Your task to perform on an android device: Search for vegetarian restaurants on Maps Image 0: 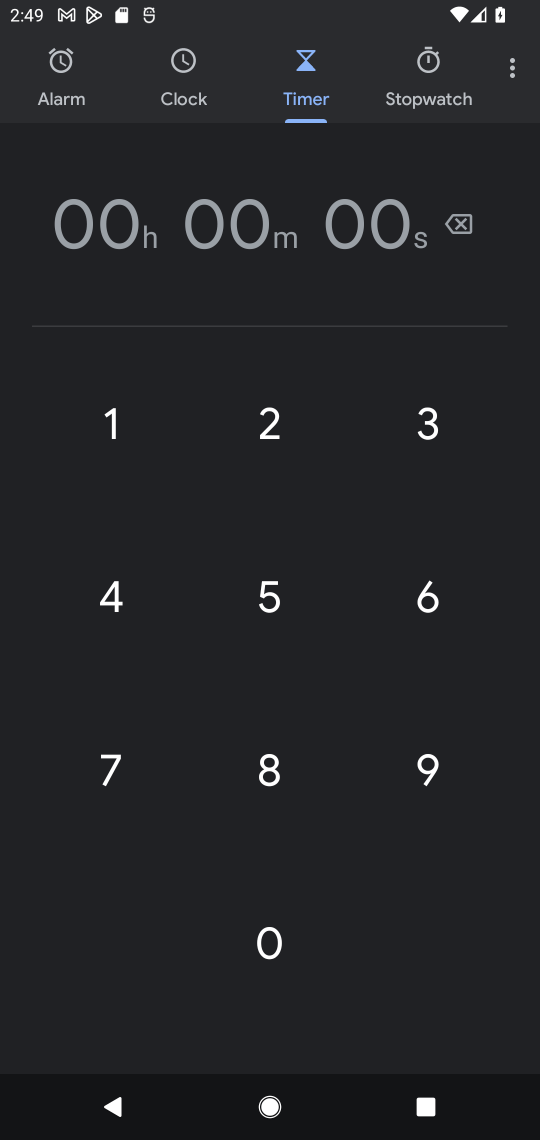
Step 0: press home button
Your task to perform on an android device: Search for vegetarian restaurants on Maps Image 1: 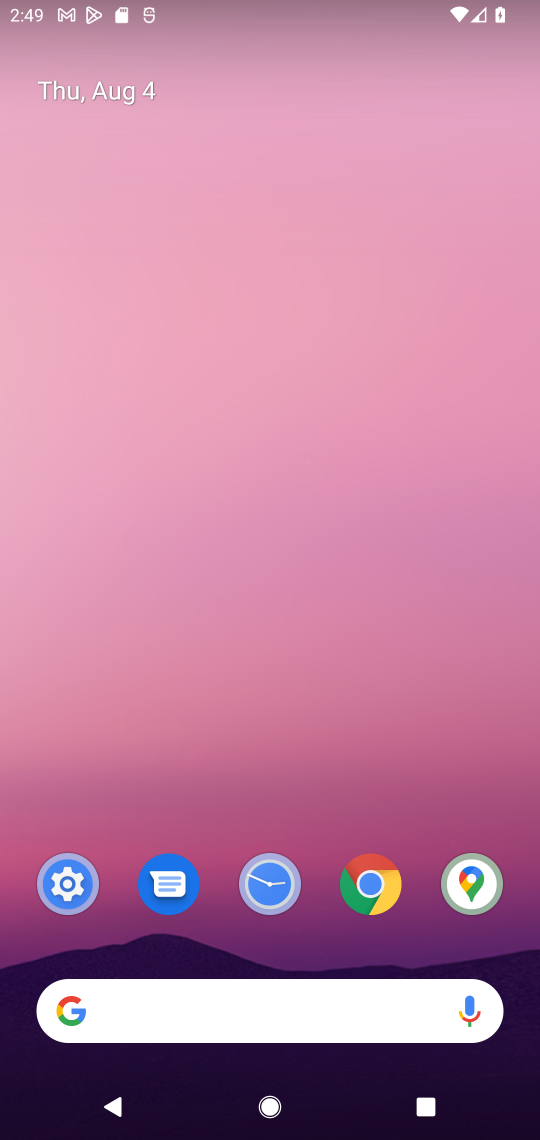
Step 1: drag from (294, 966) to (381, 198)
Your task to perform on an android device: Search for vegetarian restaurants on Maps Image 2: 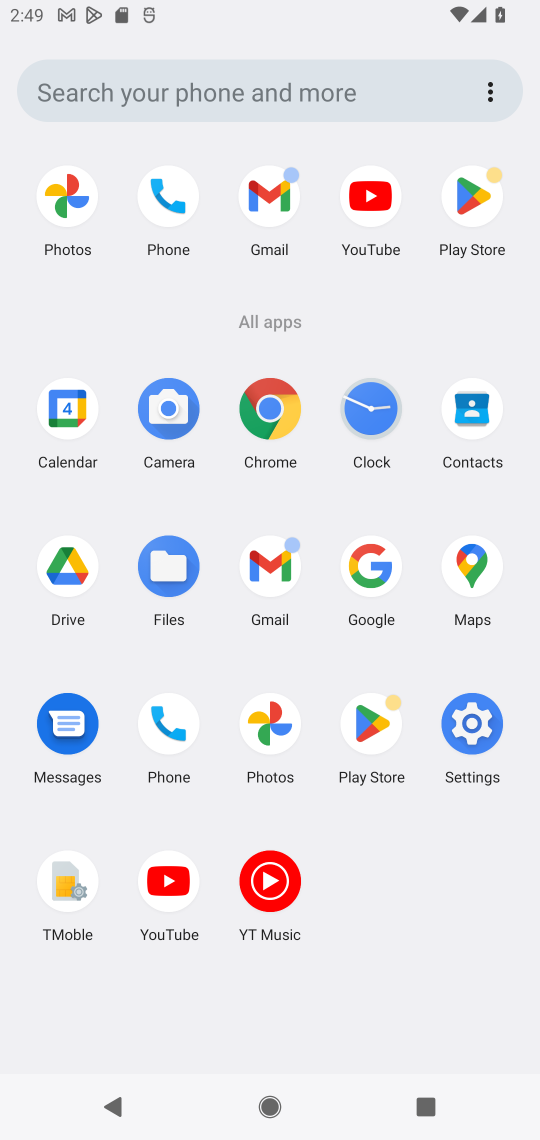
Step 2: click (476, 603)
Your task to perform on an android device: Search for vegetarian restaurants on Maps Image 3: 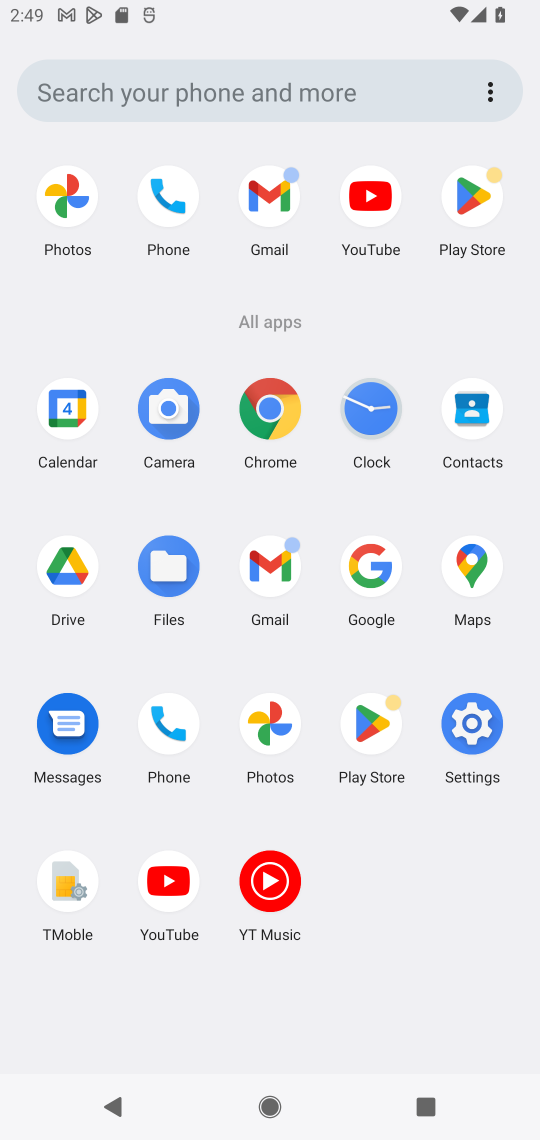
Step 3: click (476, 603)
Your task to perform on an android device: Search for vegetarian restaurants on Maps Image 4: 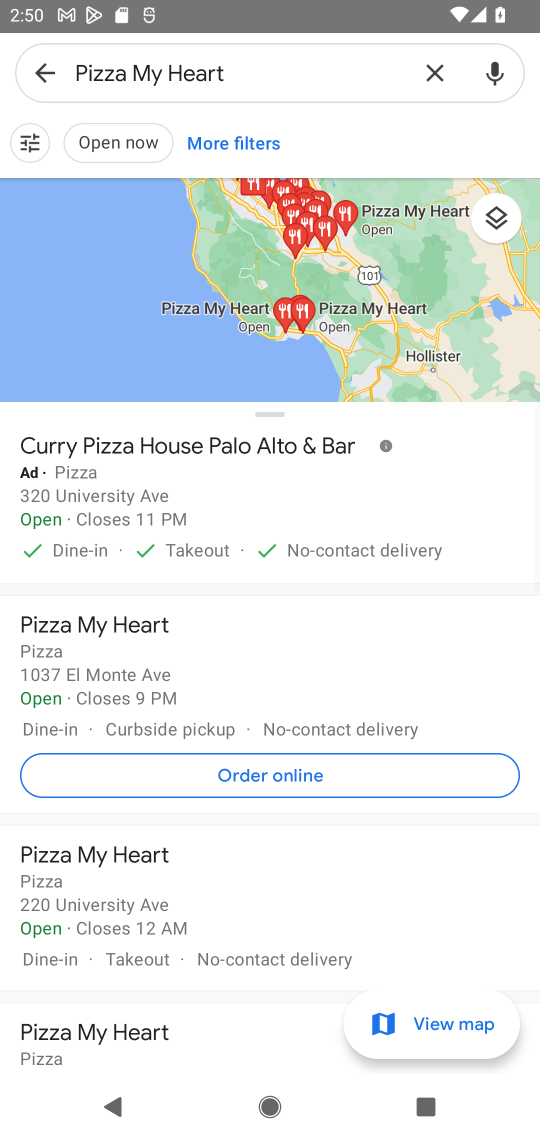
Step 4: click (419, 78)
Your task to perform on an android device: Search for vegetarian restaurants on Maps Image 5: 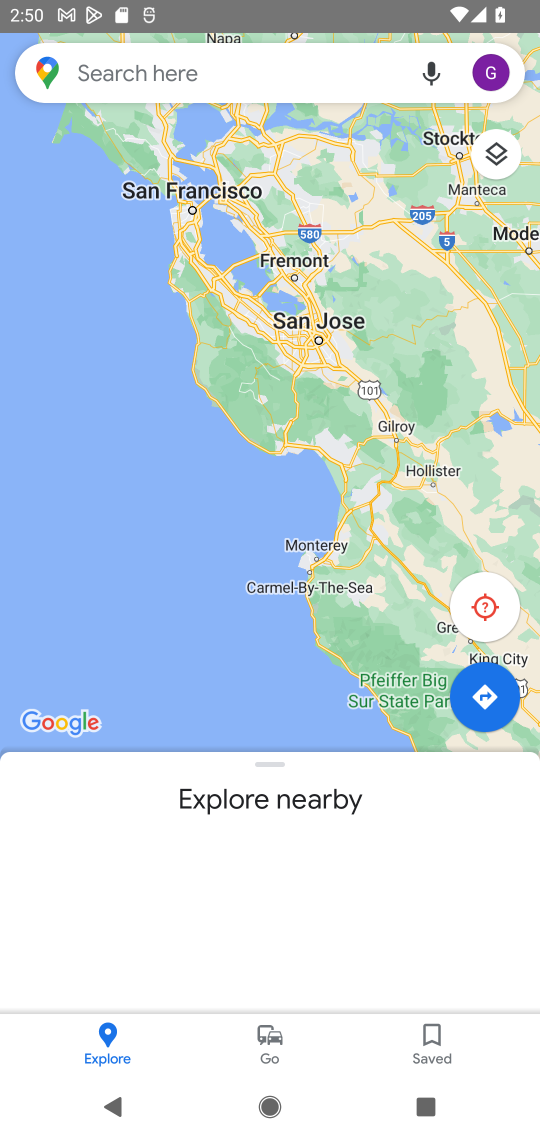
Step 5: click (299, 63)
Your task to perform on an android device: Search for vegetarian restaurants on Maps Image 6: 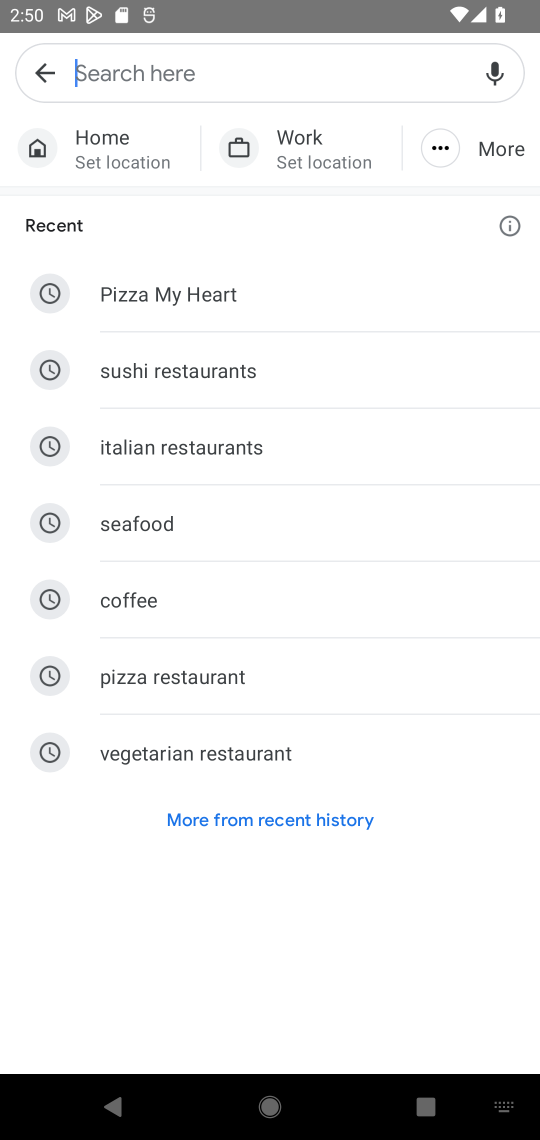
Step 6: click (321, 763)
Your task to perform on an android device: Search for vegetarian restaurants on Maps Image 7: 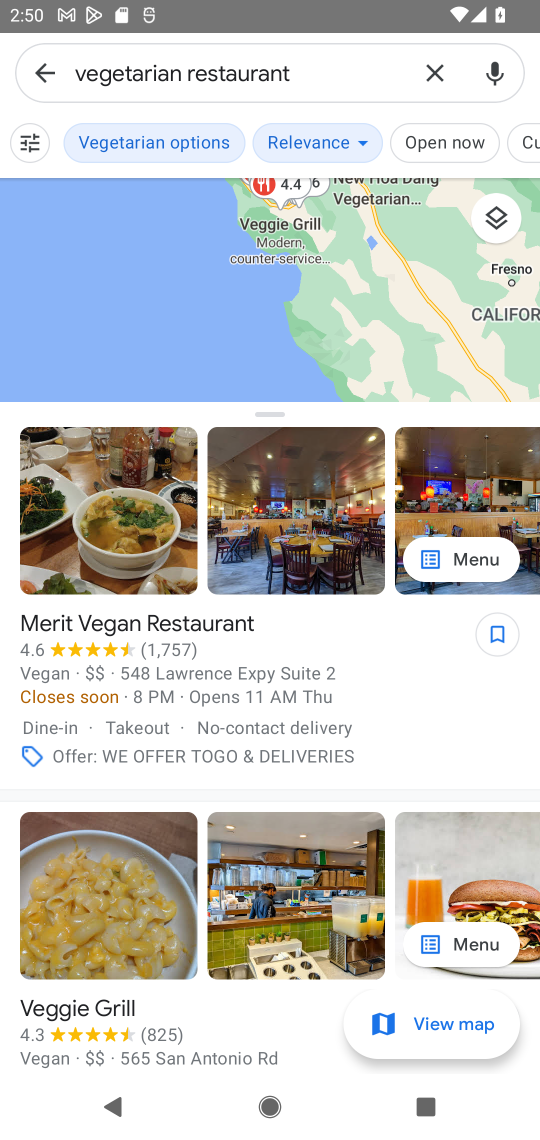
Step 7: task complete